Your task to perform on an android device: Open eBay Image 0: 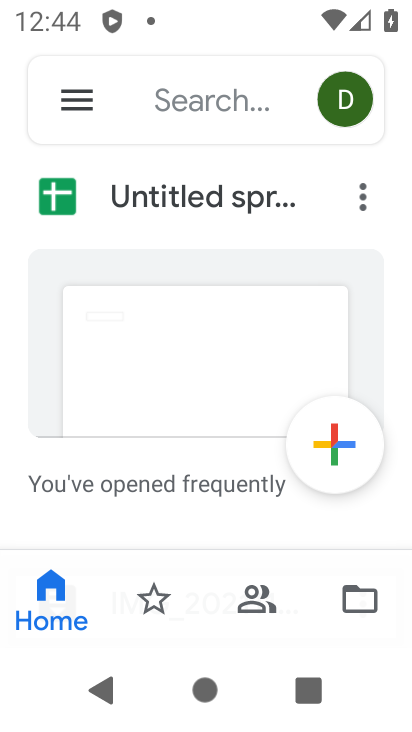
Step 0: press home button
Your task to perform on an android device: Open eBay Image 1: 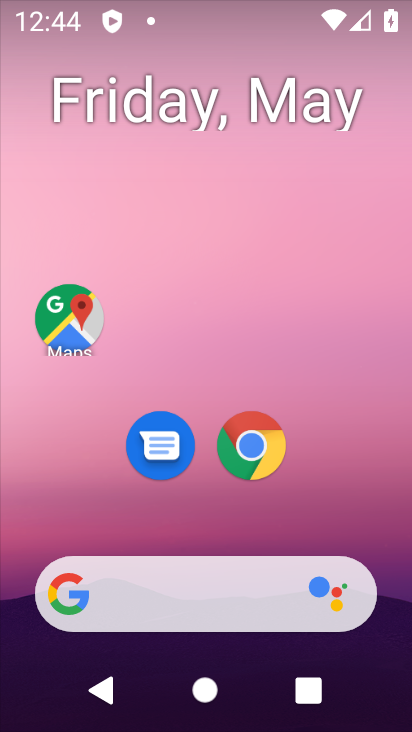
Step 1: click (244, 448)
Your task to perform on an android device: Open eBay Image 2: 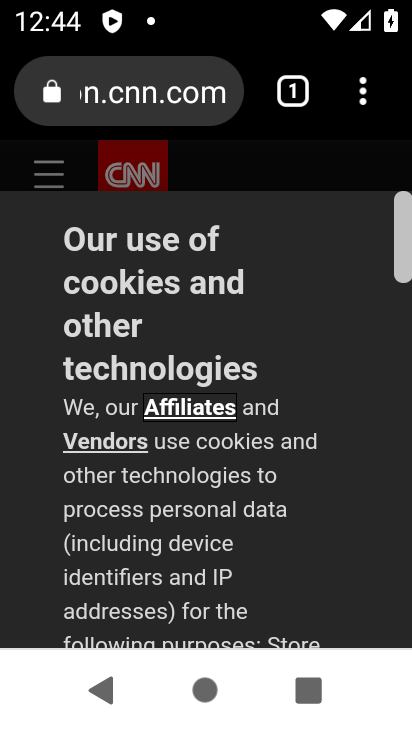
Step 2: click (180, 81)
Your task to perform on an android device: Open eBay Image 3: 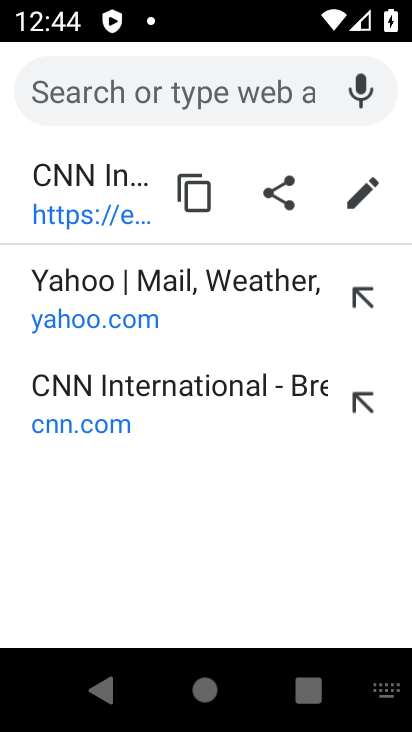
Step 3: type "ebay"
Your task to perform on an android device: Open eBay Image 4: 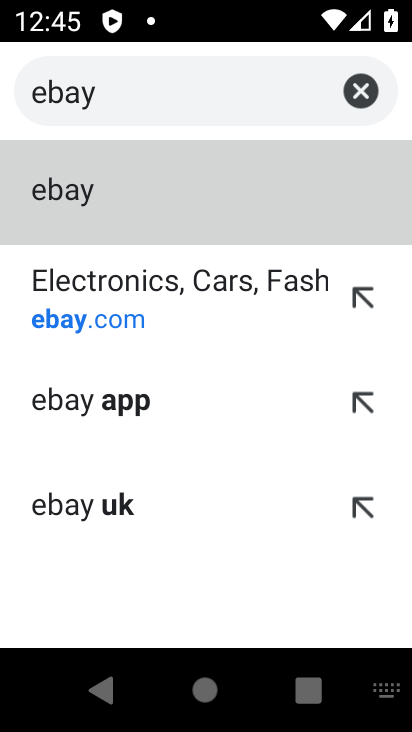
Step 4: click (91, 188)
Your task to perform on an android device: Open eBay Image 5: 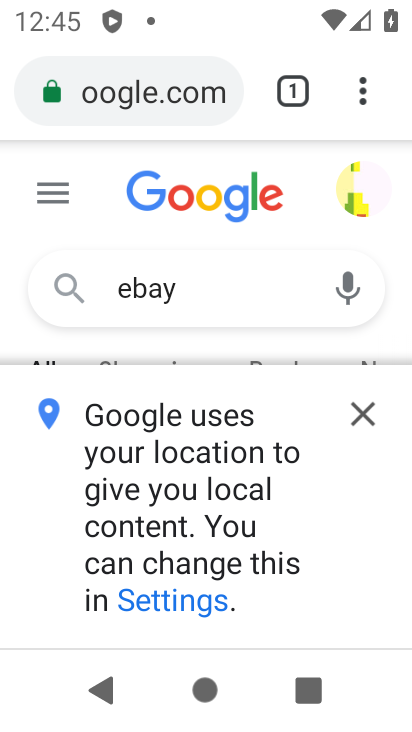
Step 5: click (360, 410)
Your task to perform on an android device: Open eBay Image 6: 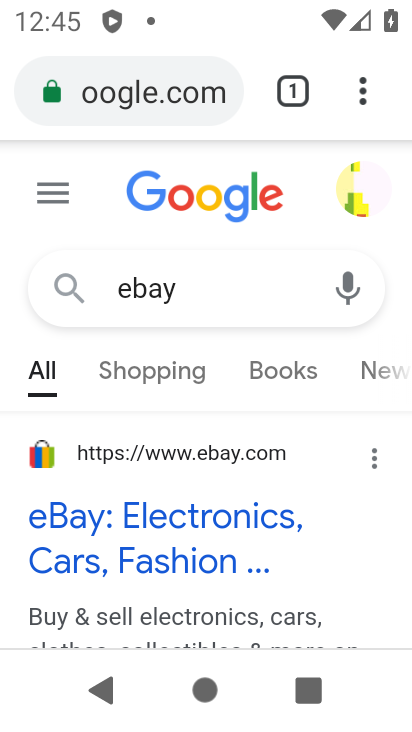
Step 6: click (143, 443)
Your task to perform on an android device: Open eBay Image 7: 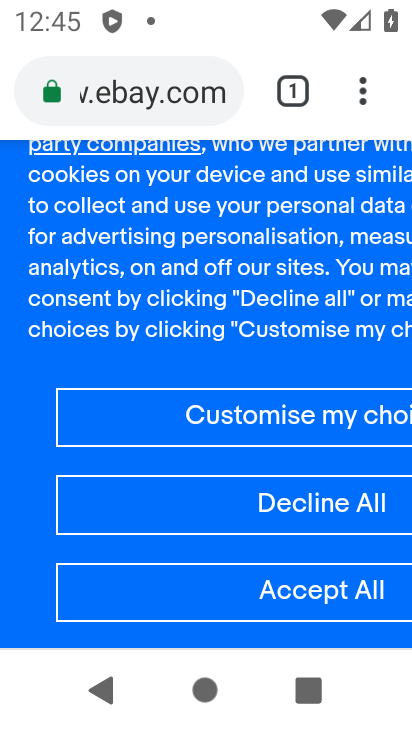
Step 7: task complete